Your task to perform on an android device: open app "Facebook Lite" (install if not already installed), go to login, and select forgot password Image 0: 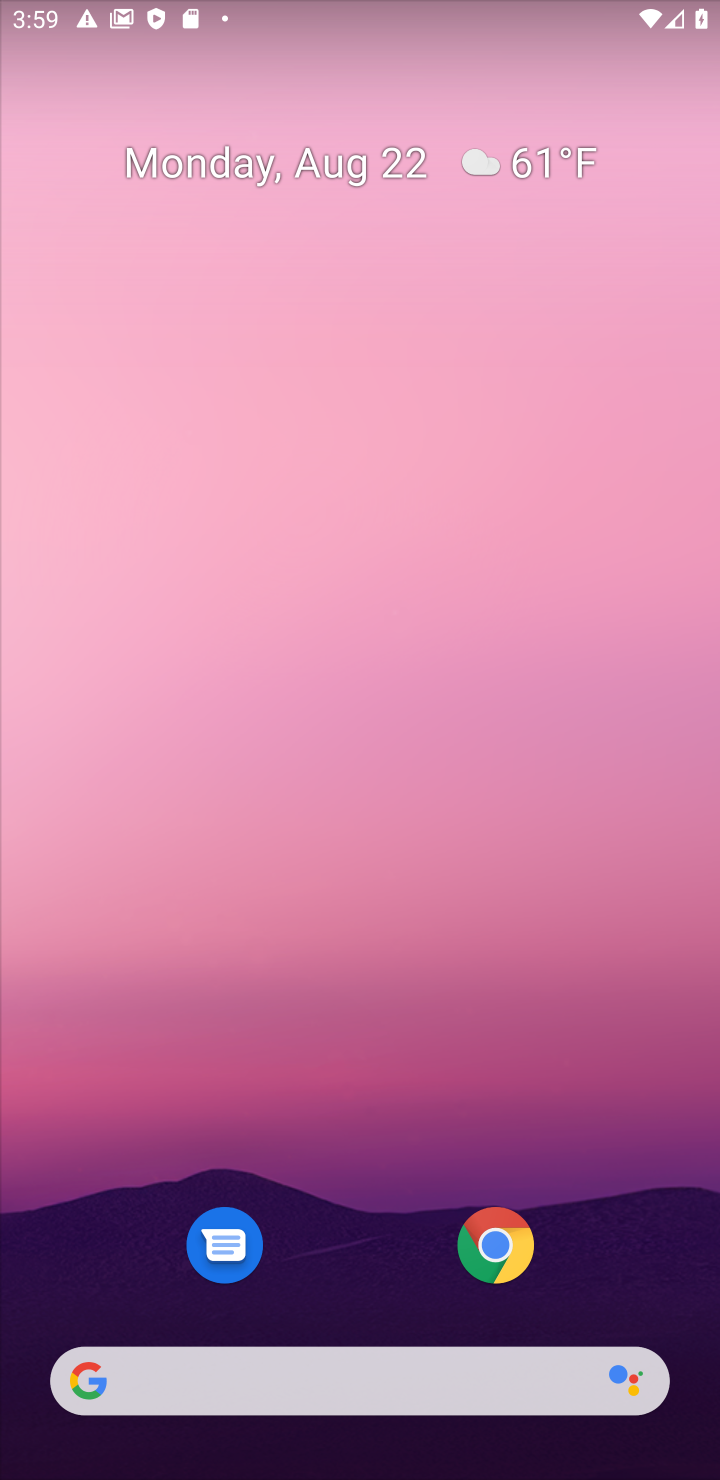
Step 0: press home button
Your task to perform on an android device: open app "Facebook Lite" (install if not already installed), go to login, and select forgot password Image 1: 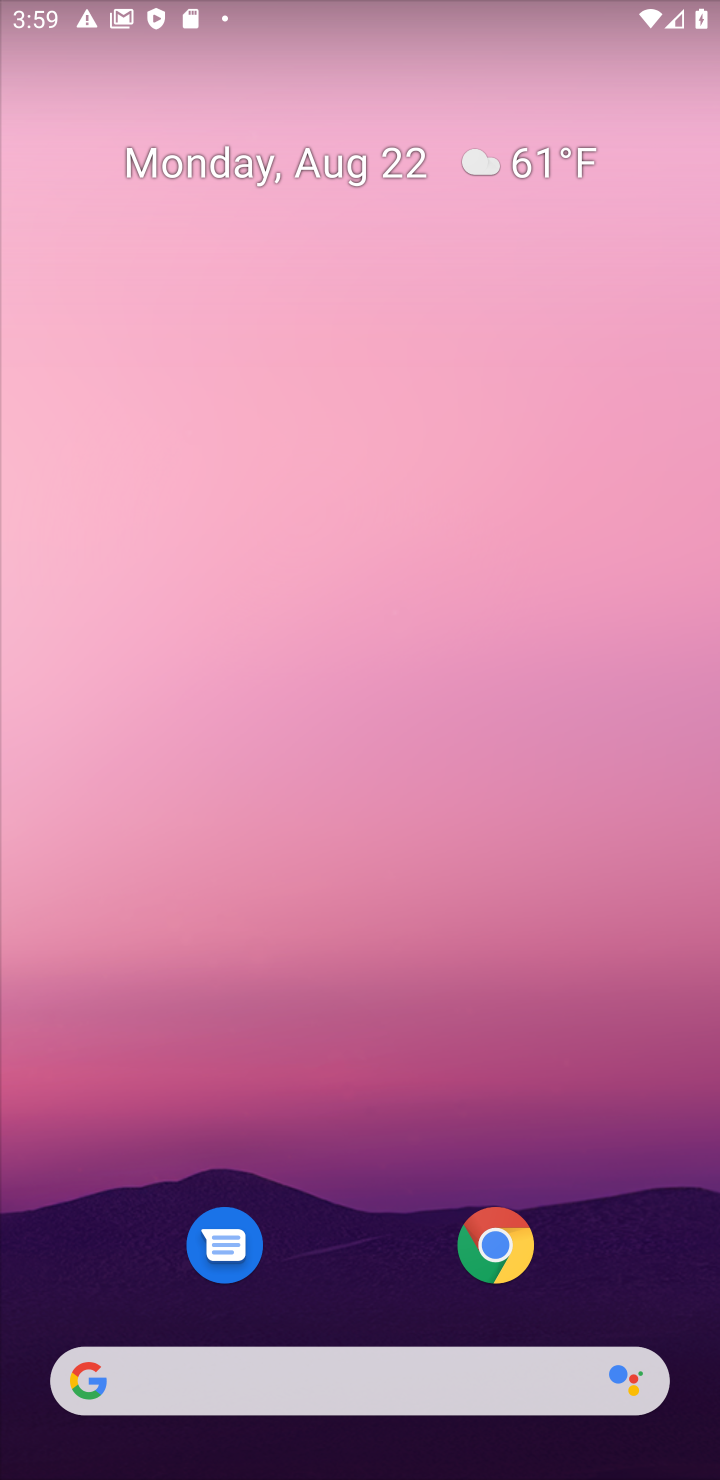
Step 1: drag from (630, 1037) to (552, 151)
Your task to perform on an android device: open app "Facebook Lite" (install if not already installed), go to login, and select forgot password Image 2: 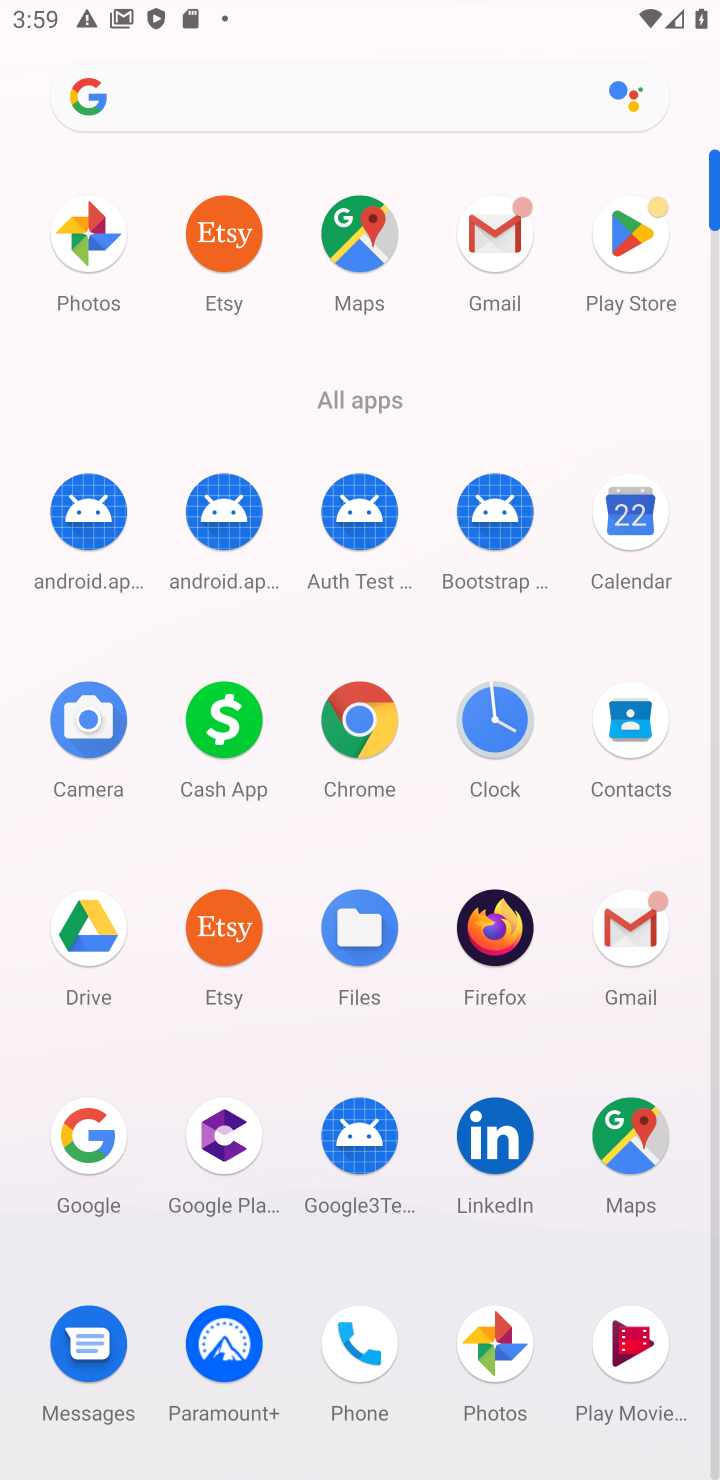
Step 2: click (628, 231)
Your task to perform on an android device: open app "Facebook Lite" (install if not already installed), go to login, and select forgot password Image 3: 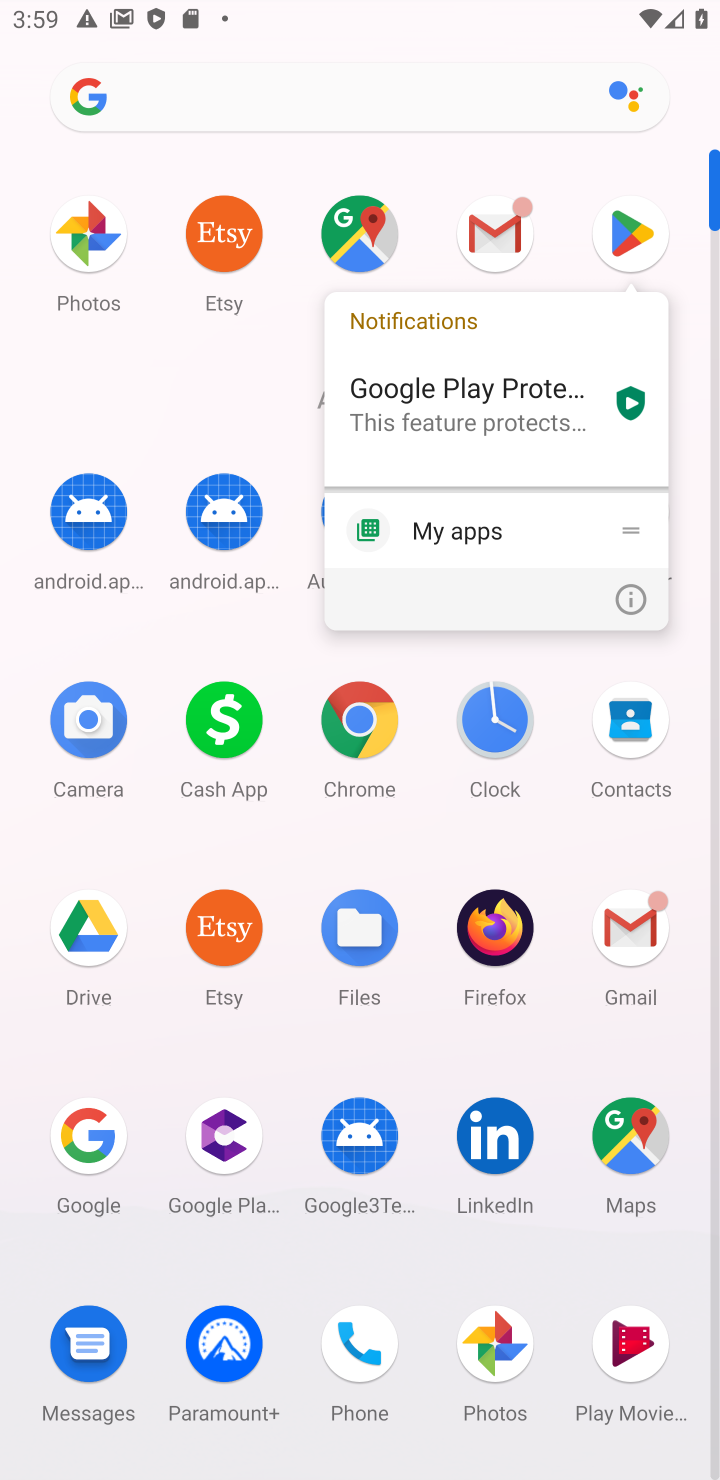
Step 3: click (628, 231)
Your task to perform on an android device: open app "Facebook Lite" (install if not already installed), go to login, and select forgot password Image 4: 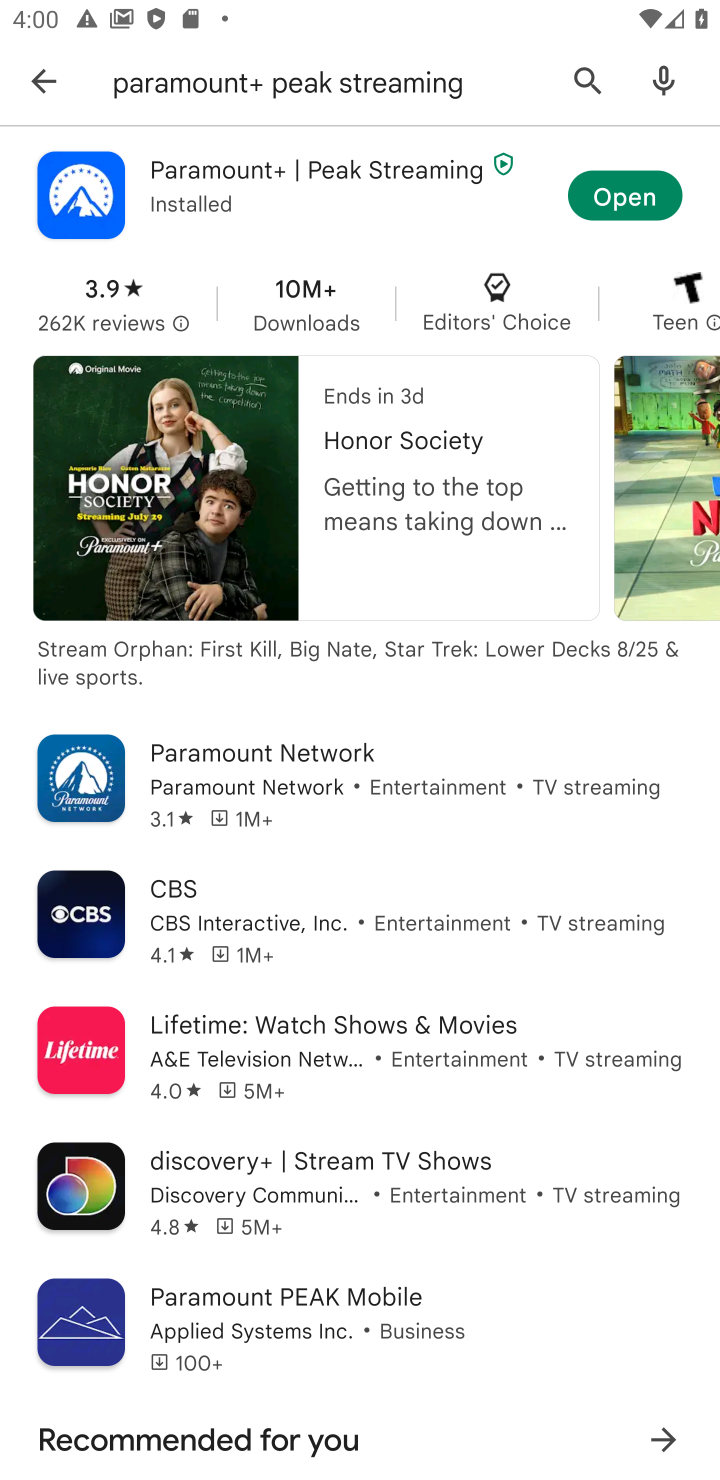
Step 4: press back button
Your task to perform on an android device: open app "Facebook Lite" (install if not already installed), go to login, and select forgot password Image 5: 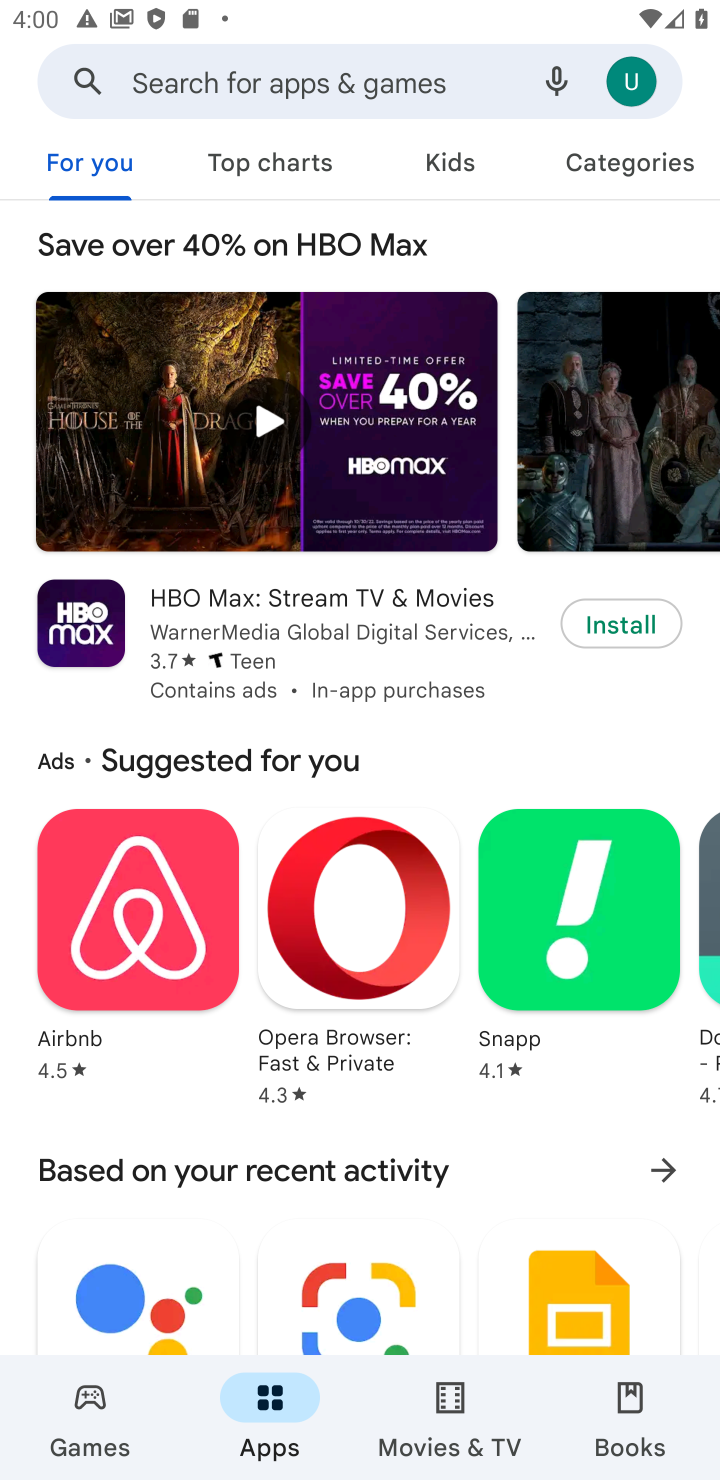
Step 5: click (398, 93)
Your task to perform on an android device: open app "Facebook Lite" (install if not already installed), go to login, and select forgot password Image 6: 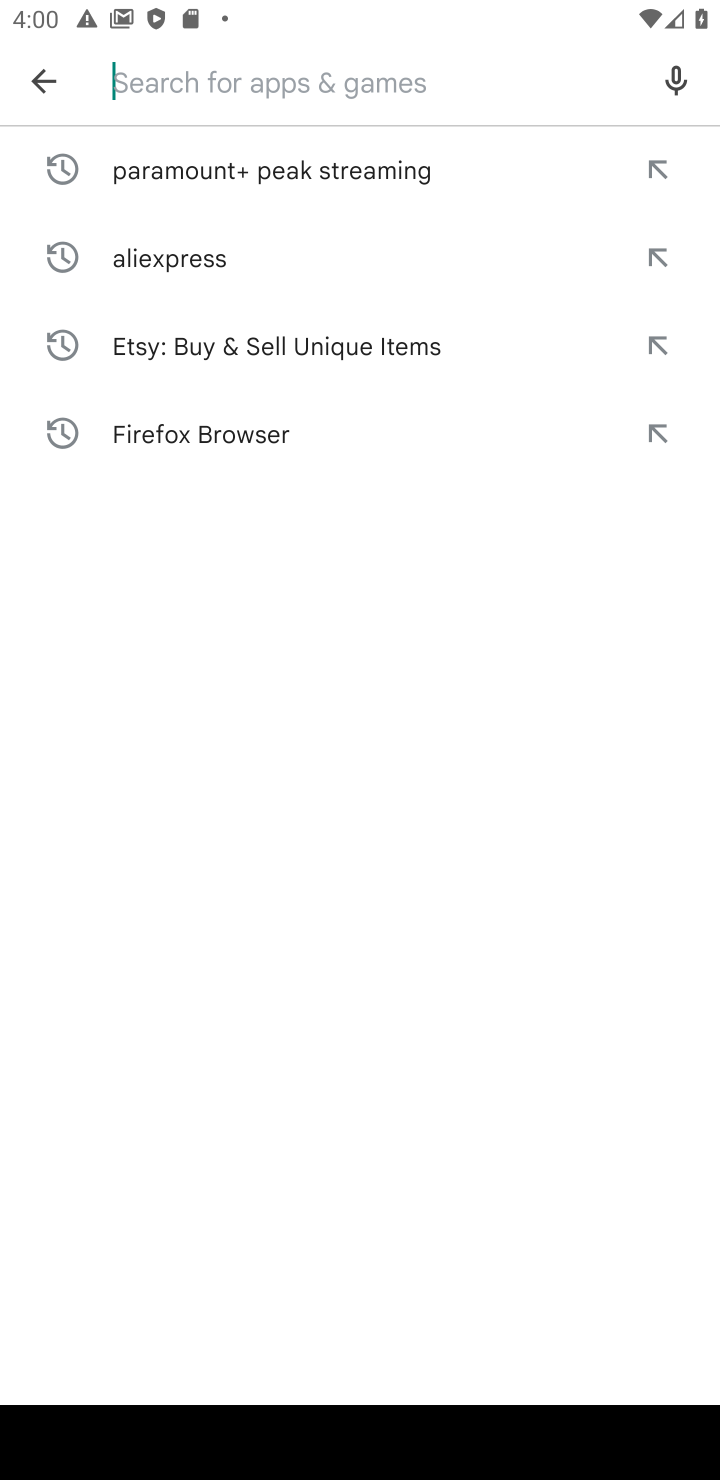
Step 6: type "Facebook Lite"
Your task to perform on an android device: open app "Facebook Lite" (install if not already installed), go to login, and select forgot password Image 7: 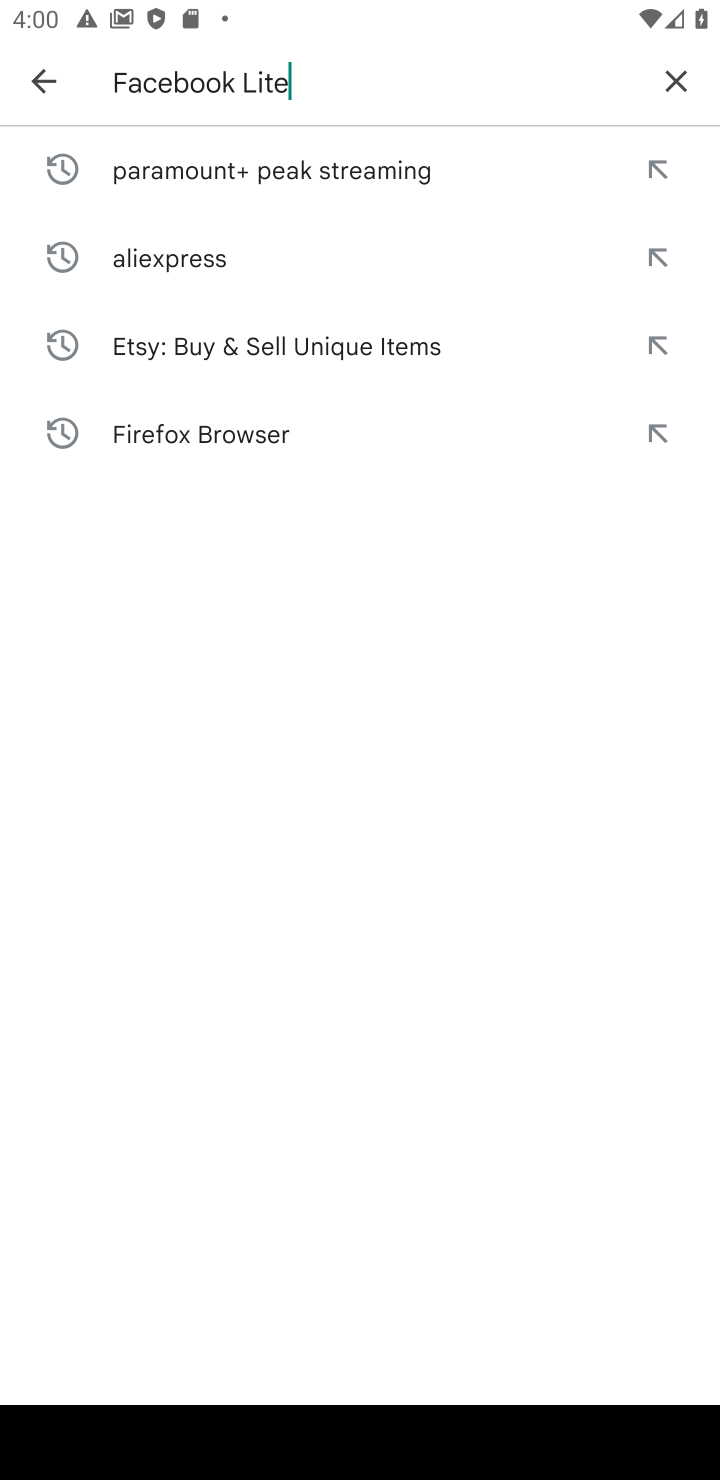
Step 7: press enter
Your task to perform on an android device: open app "Facebook Lite" (install if not already installed), go to login, and select forgot password Image 8: 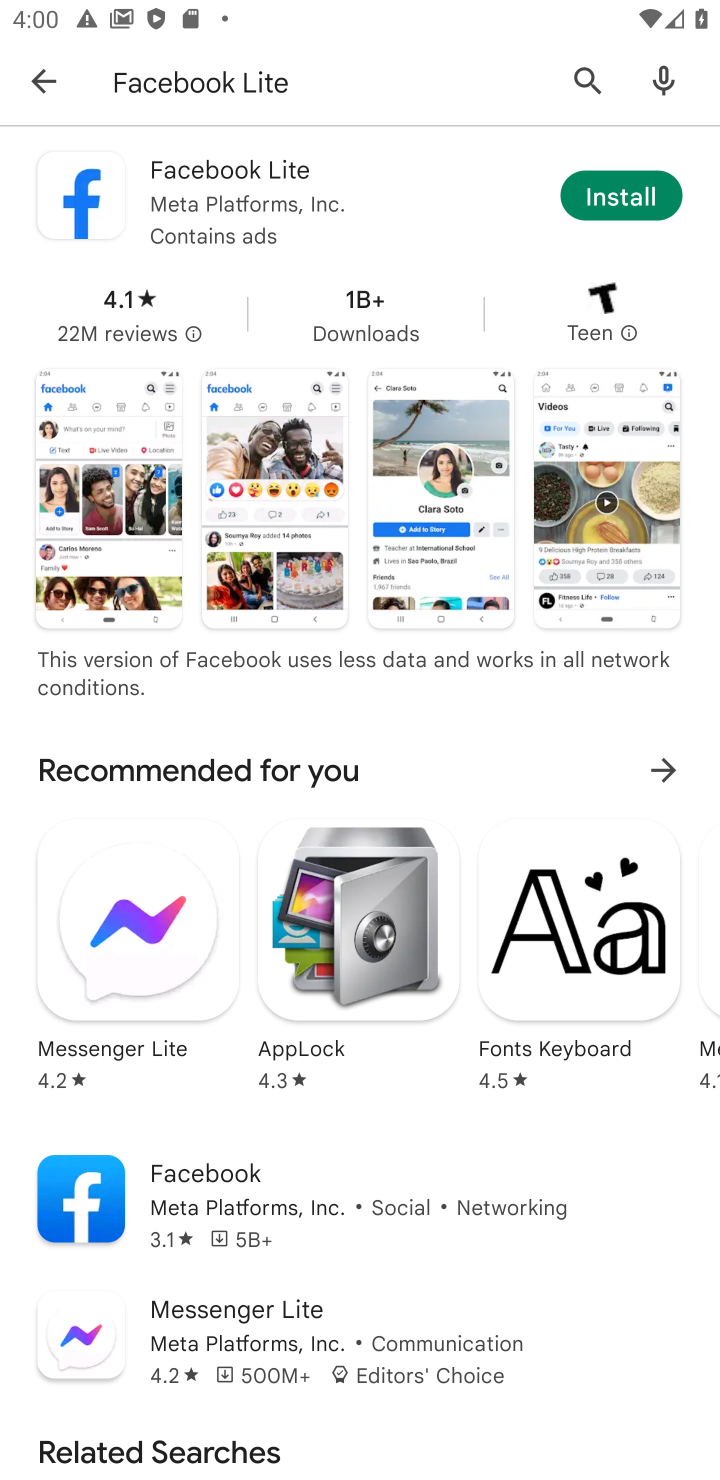
Step 8: click (617, 209)
Your task to perform on an android device: open app "Facebook Lite" (install if not already installed), go to login, and select forgot password Image 9: 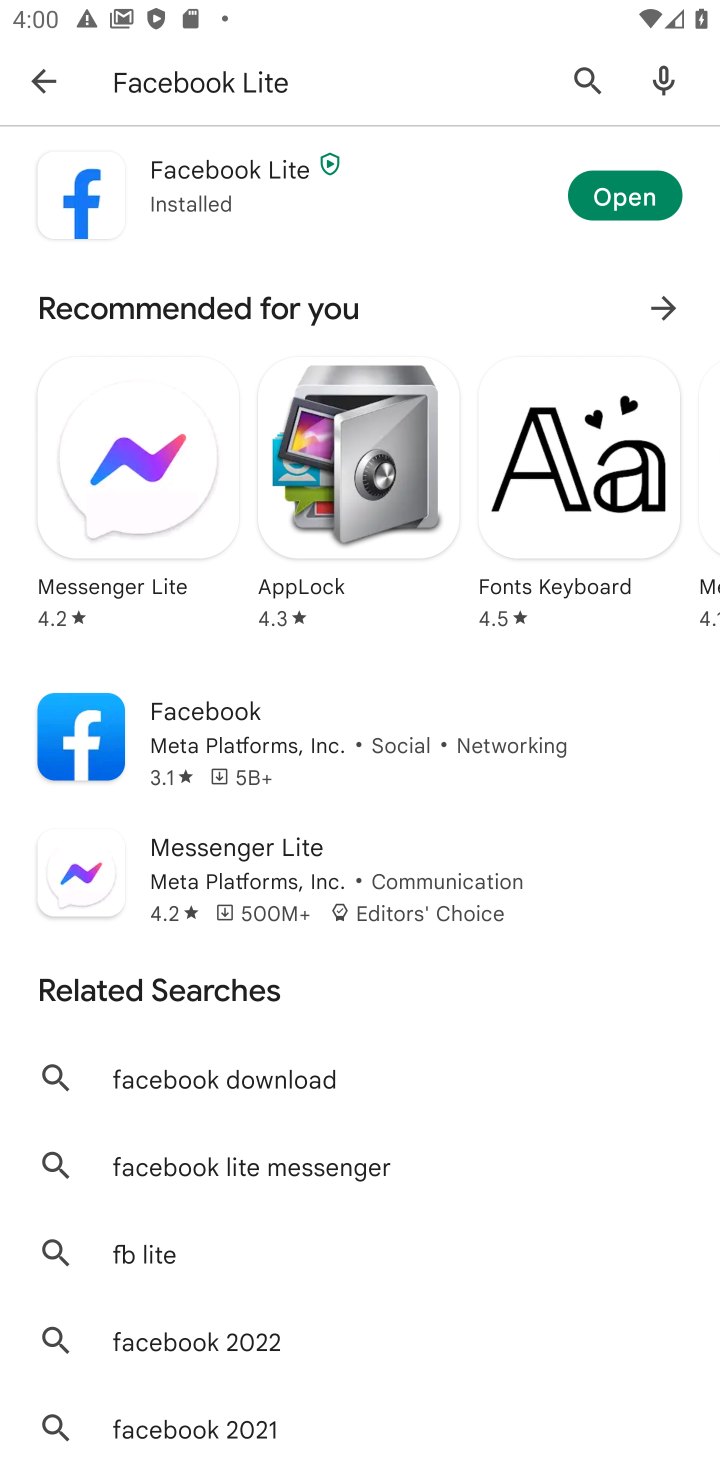
Step 9: click (638, 196)
Your task to perform on an android device: open app "Facebook Lite" (install if not already installed), go to login, and select forgot password Image 10: 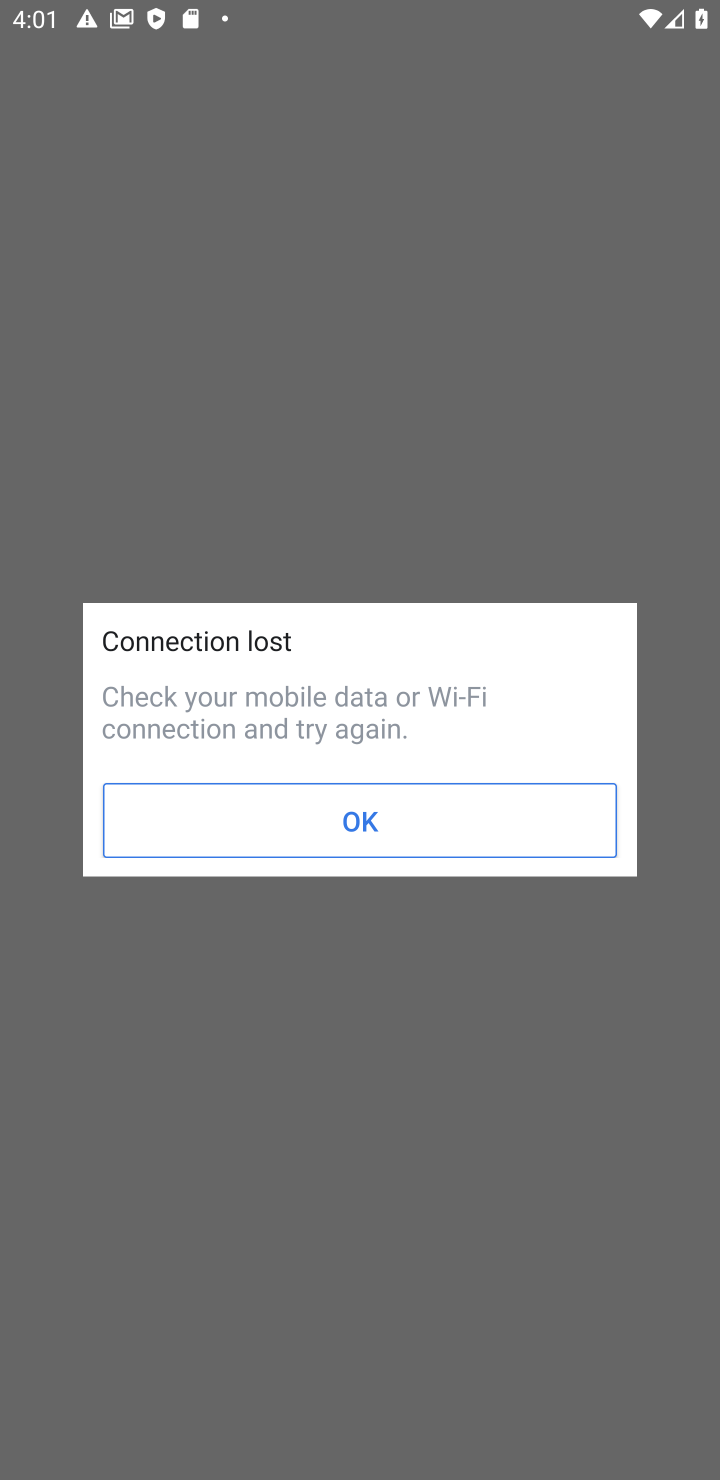
Step 10: task complete